Your task to perform on an android device: turn off picture-in-picture Image 0: 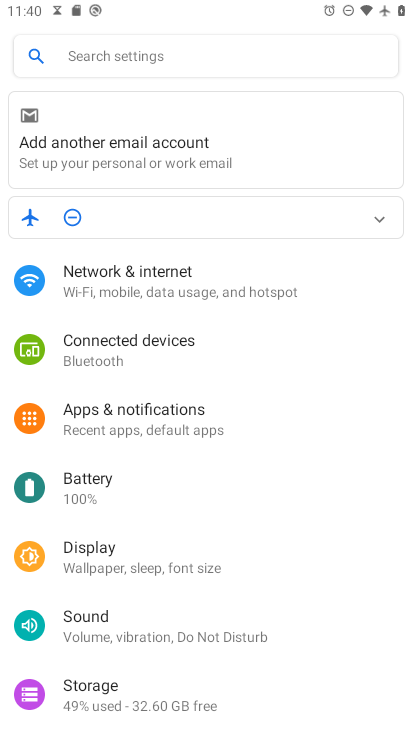
Step 0: press home button
Your task to perform on an android device: turn off picture-in-picture Image 1: 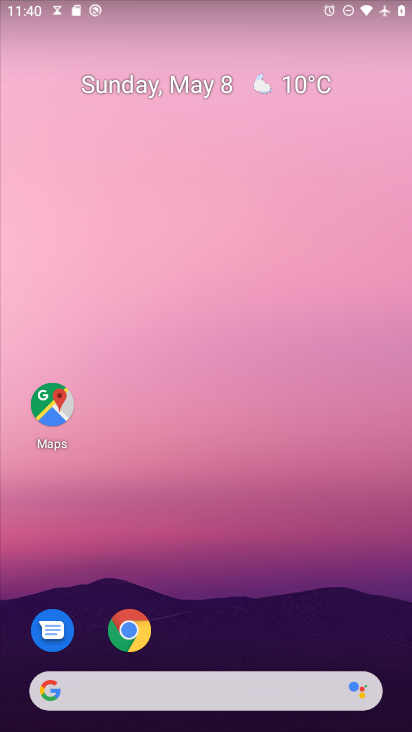
Step 1: click (136, 629)
Your task to perform on an android device: turn off picture-in-picture Image 2: 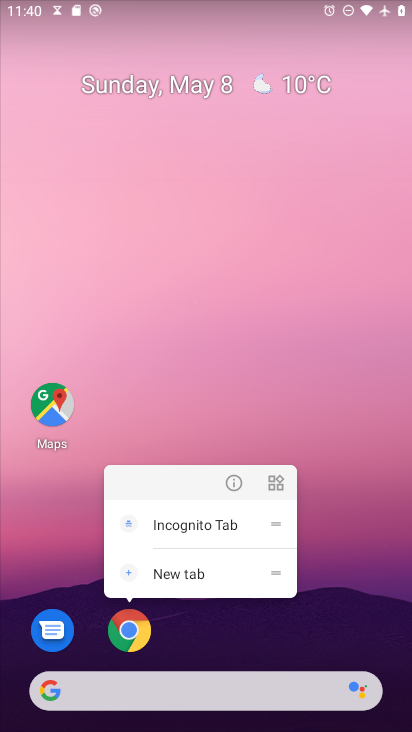
Step 2: click (236, 485)
Your task to perform on an android device: turn off picture-in-picture Image 3: 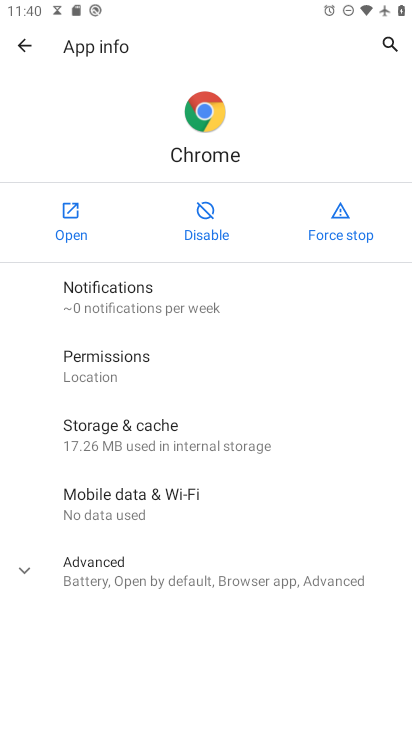
Step 3: click (80, 568)
Your task to perform on an android device: turn off picture-in-picture Image 4: 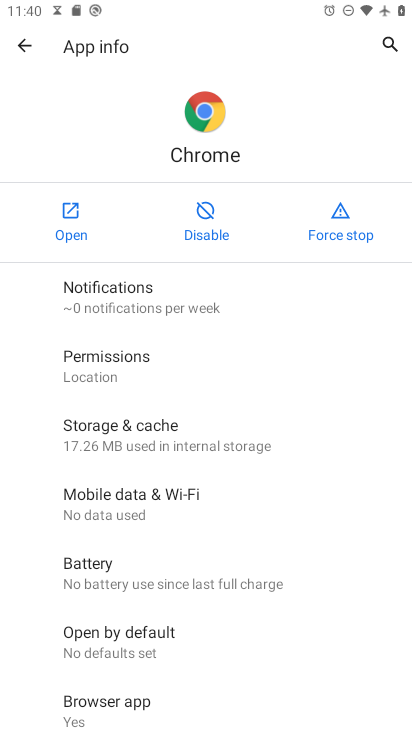
Step 4: drag from (205, 637) to (351, 271)
Your task to perform on an android device: turn off picture-in-picture Image 5: 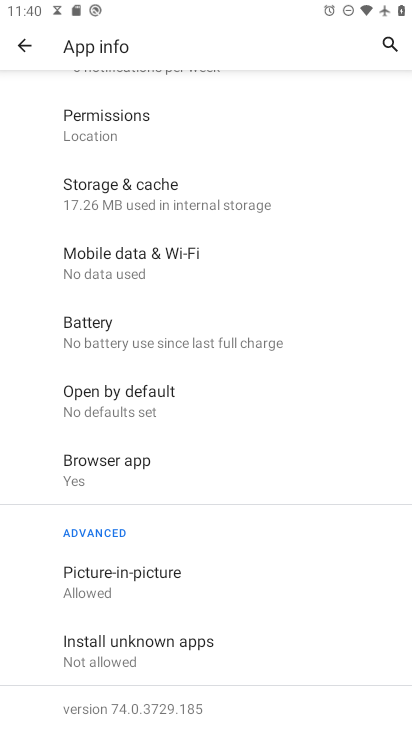
Step 5: click (99, 577)
Your task to perform on an android device: turn off picture-in-picture Image 6: 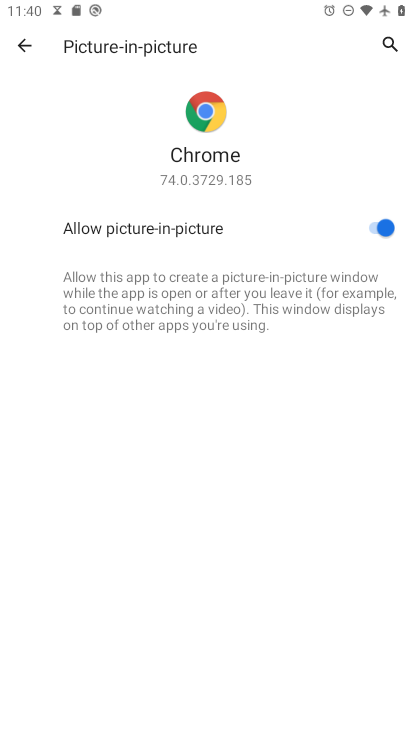
Step 6: click (375, 221)
Your task to perform on an android device: turn off picture-in-picture Image 7: 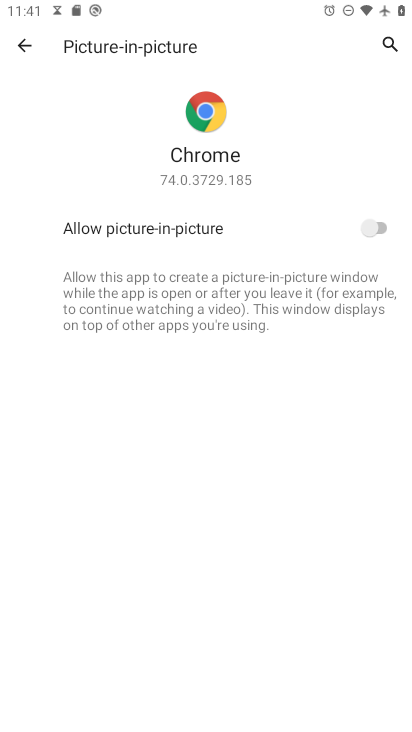
Step 7: task complete